Your task to perform on an android device: turn off airplane mode Image 0: 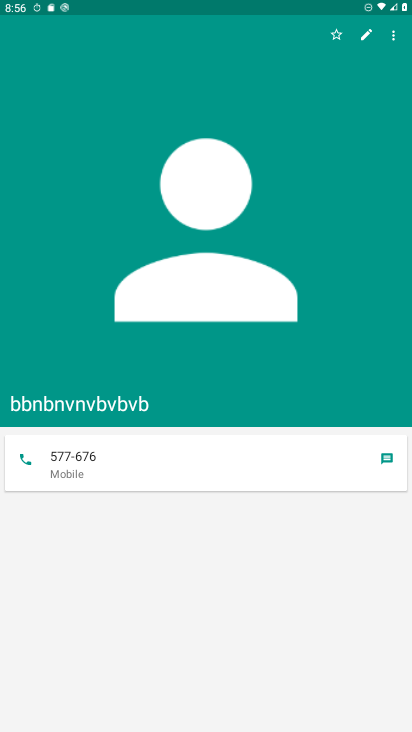
Step 0: press home button
Your task to perform on an android device: turn off airplane mode Image 1: 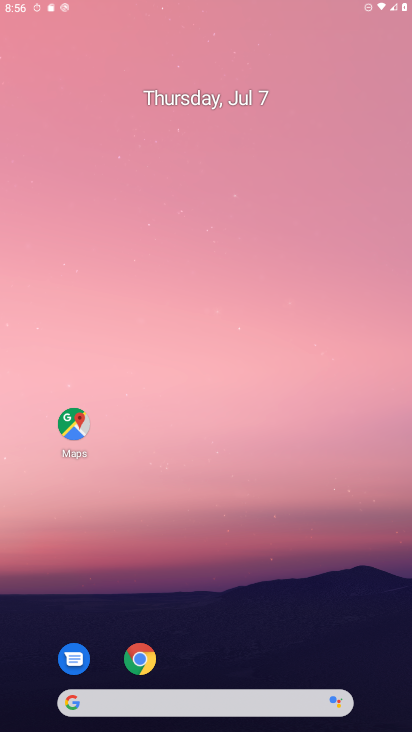
Step 1: task complete